Your task to perform on an android device: Open Google Chrome and click the shortcut for Amazon.com Image 0: 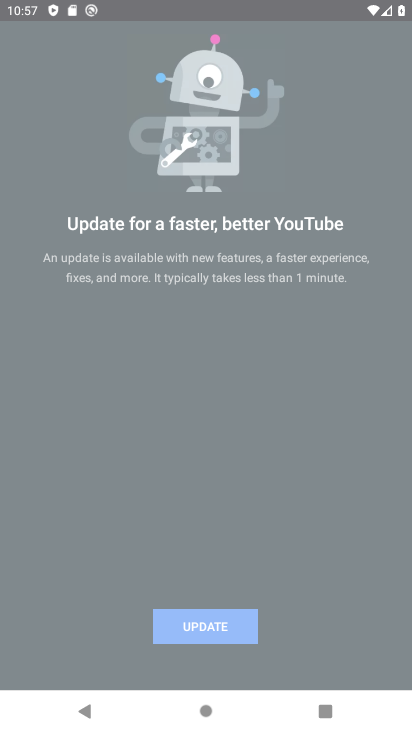
Step 0: drag from (211, 723) to (191, 106)
Your task to perform on an android device: Open Google Chrome and click the shortcut for Amazon.com Image 1: 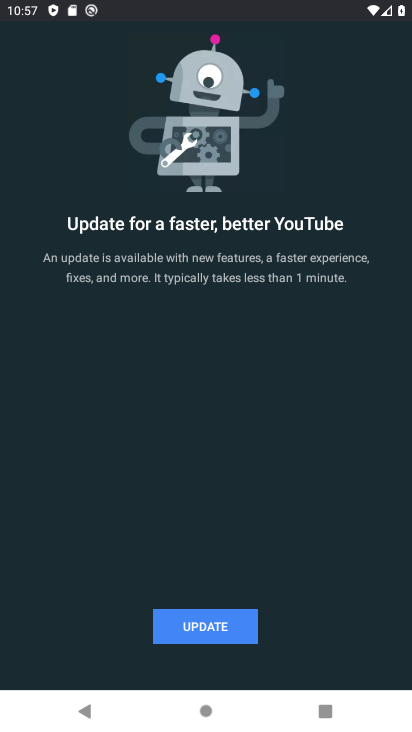
Step 1: press home button
Your task to perform on an android device: Open Google Chrome and click the shortcut for Amazon.com Image 2: 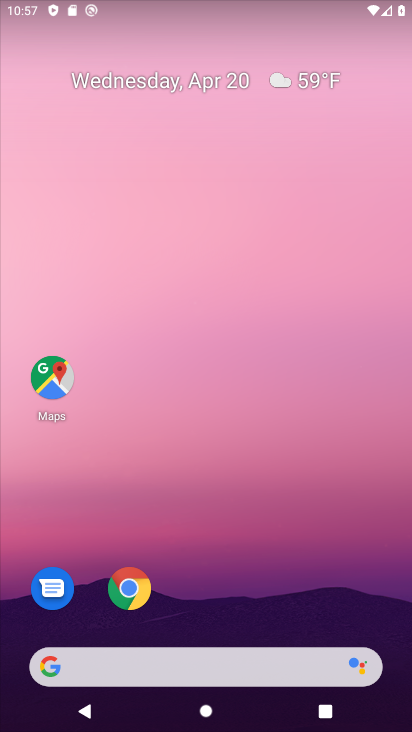
Step 2: click (126, 591)
Your task to perform on an android device: Open Google Chrome and click the shortcut for Amazon.com Image 3: 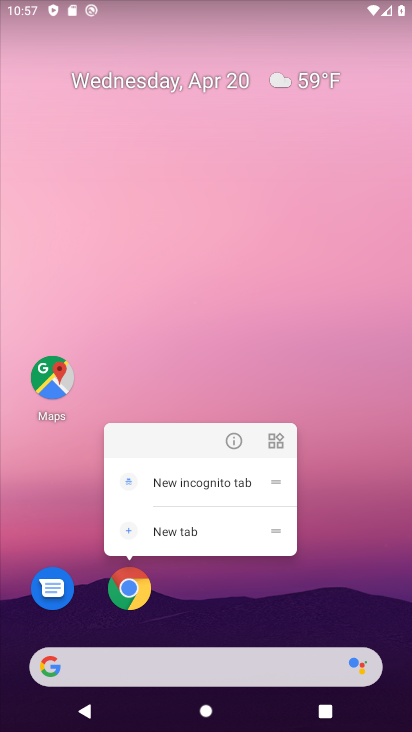
Step 3: click (154, 641)
Your task to perform on an android device: Open Google Chrome and click the shortcut for Amazon.com Image 4: 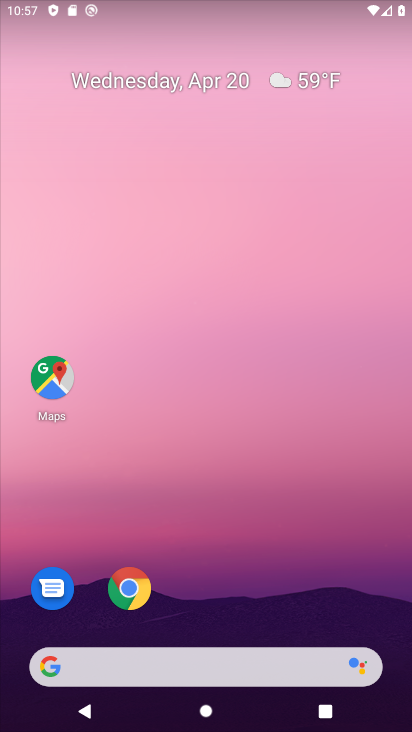
Step 4: click (129, 590)
Your task to perform on an android device: Open Google Chrome and click the shortcut for Amazon.com Image 5: 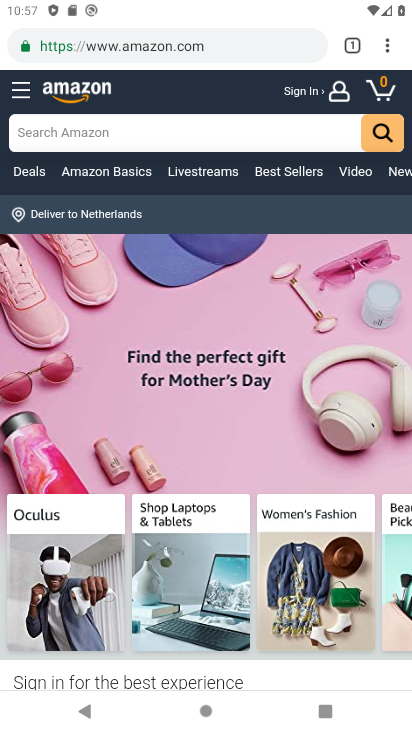
Step 5: task complete